Your task to perform on an android device: Open the calendar and show me this week's events? Image 0: 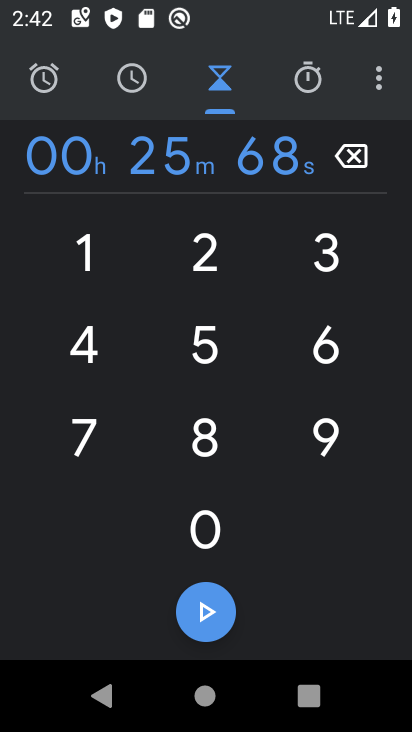
Step 0: press home button
Your task to perform on an android device: Open the calendar and show me this week's events? Image 1: 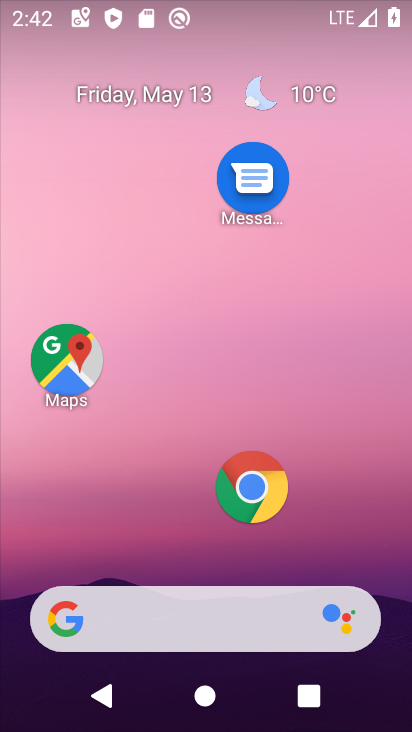
Step 1: drag from (183, 531) to (189, 163)
Your task to perform on an android device: Open the calendar and show me this week's events? Image 2: 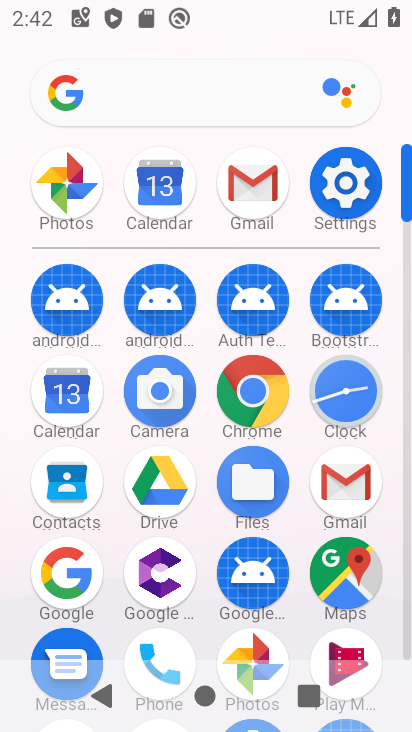
Step 2: click (62, 390)
Your task to perform on an android device: Open the calendar and show me this week's events? Image 3: 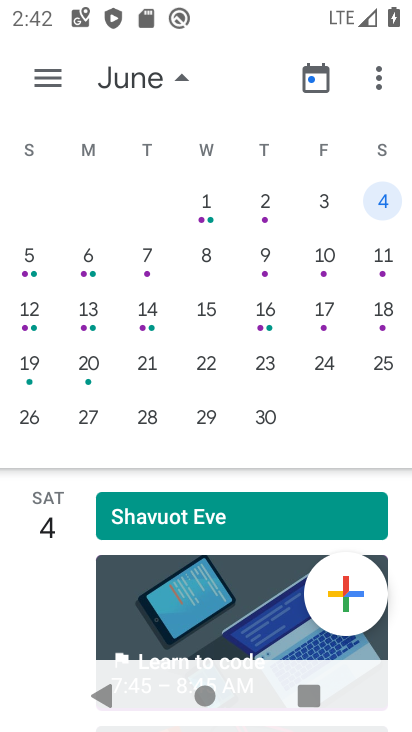
Step 3: drag from (71, 280) to (354, 249)
Your task to perform on an android device: Open the calendar and show me this week's events? Image 4: 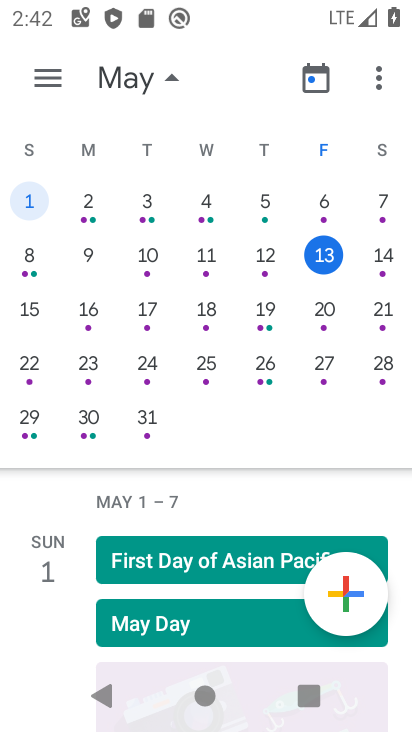
Step 4: click (31, 304)
Your task to perform on an android device: Open the calendar and show me this week's events? Image 5: 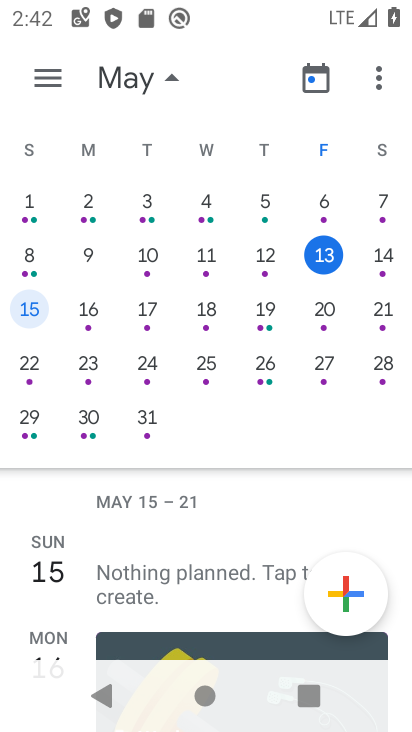
Step 5: click (83, 312)
Your task to perform on an android device: Open the calendar and show me this week's events? Image 6: 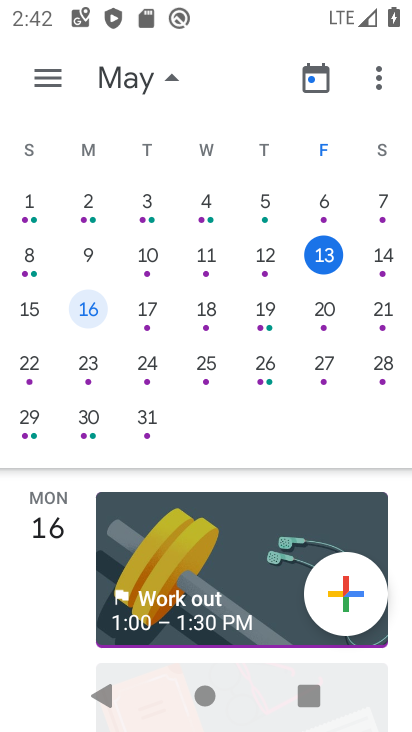
Step 6: click (146, 314)
Your task to perform on an android device: Open the calendar and show me this week's events? Image 7: 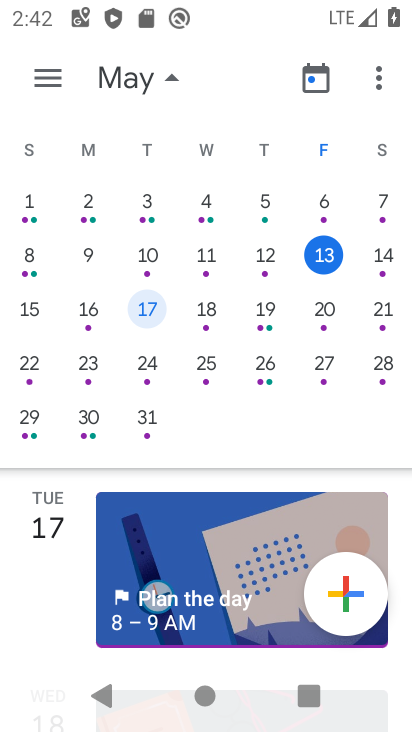
Step 7: click (211, 307)
Your task to perform on an android device: Open the calendar and show me this week's events? Image 8: 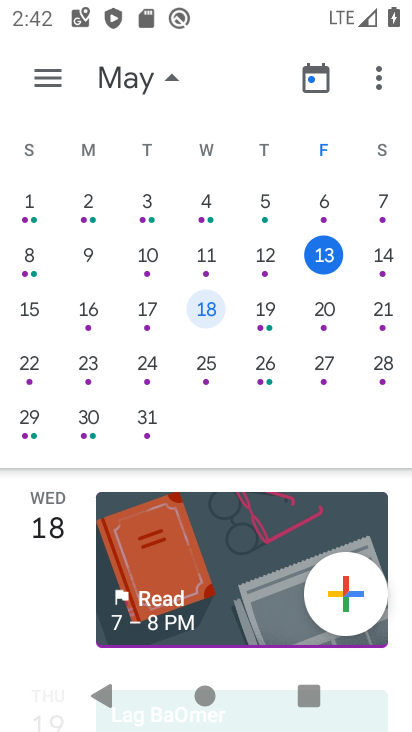
Step 8: click (275, 304)
Your task to perform on an android device: Open the calendar and show me this week's events? Image 9: 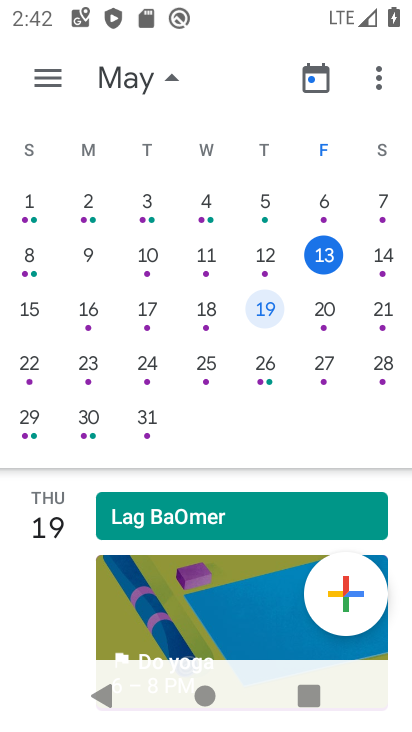
Step 9: click (325, 305)
Your task to perform on an android device: Open the calendar and show me this week's events? Image 10: 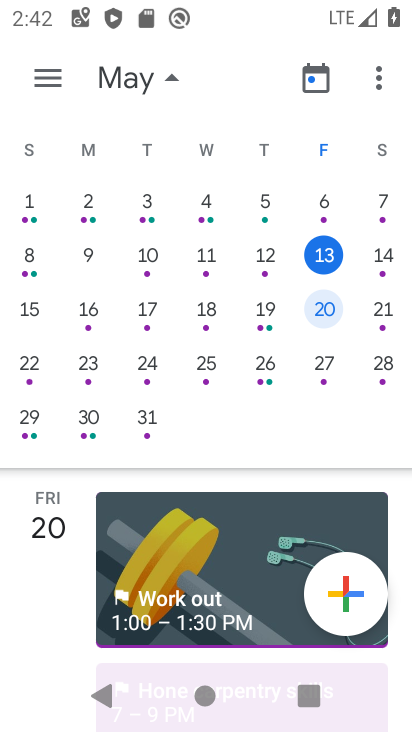
Step 10: click (381, 305)
Your task to perform on an android device: Open the calendar and show me this week's events? Image 11: 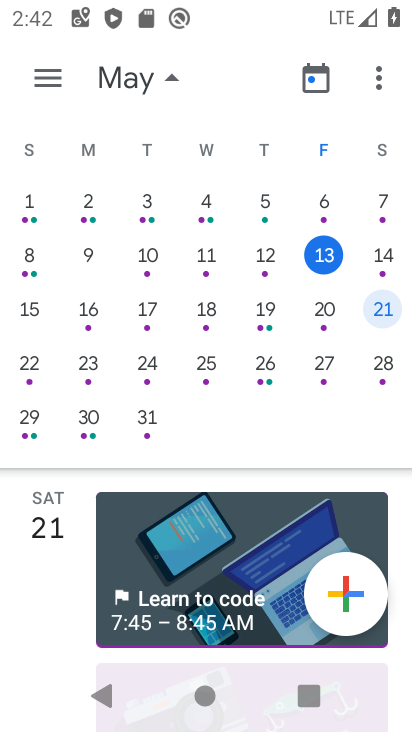
Step 11: task complete